Your task to perform on an android device: Open a new Chrome incognito tab Image 0: 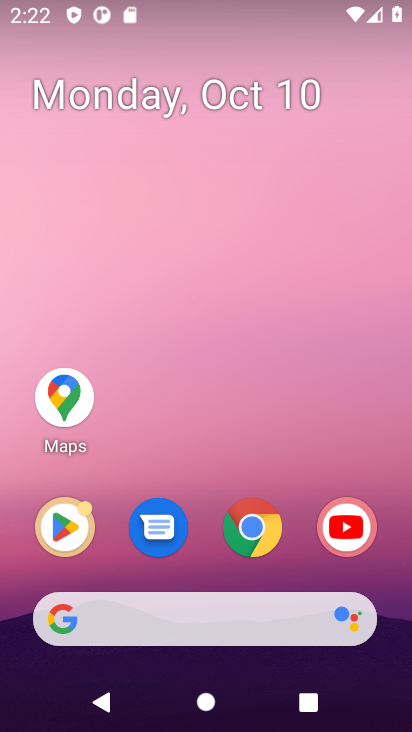
Step 0: click (254, 528)
Your task to perform on an android device: Open a new Chrome incognito tab Image 1: 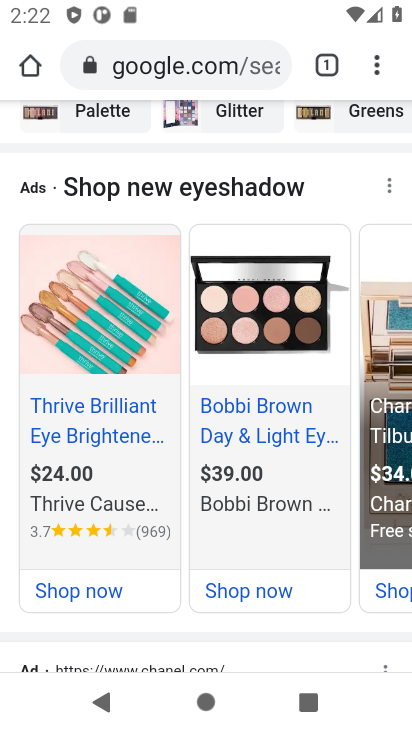
Step 1: click (378, 70)
Your task to perform on an android device: Open a new Chrome incognito tab Image 2: 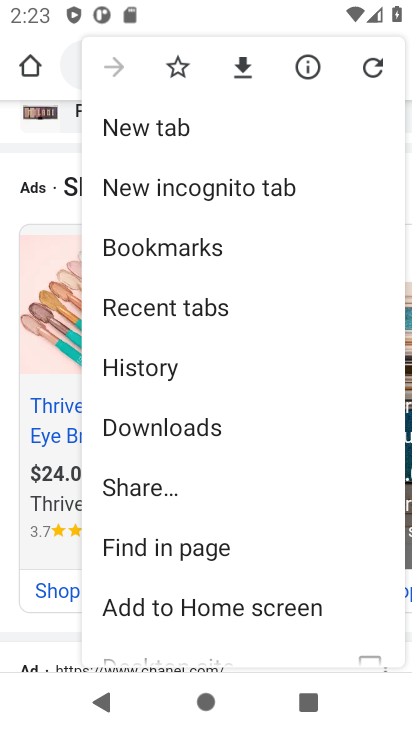
Step 2: click (231, 193)
Your task to perform on an android device: Open a new Chrome incognito tab Image 3: 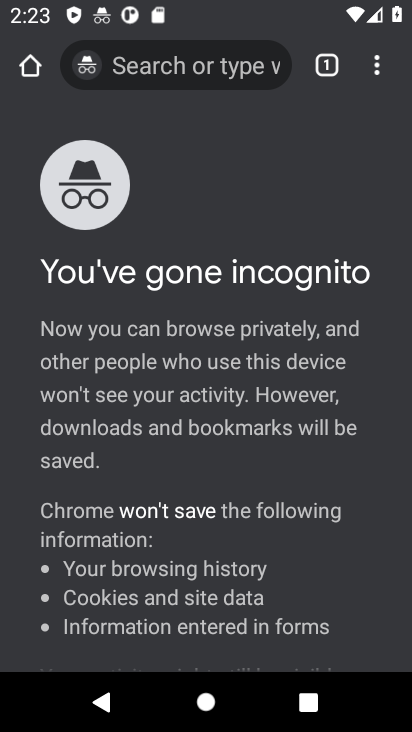
Step 3: task complete